Your task to perform on an android device: Open maps Image 0: 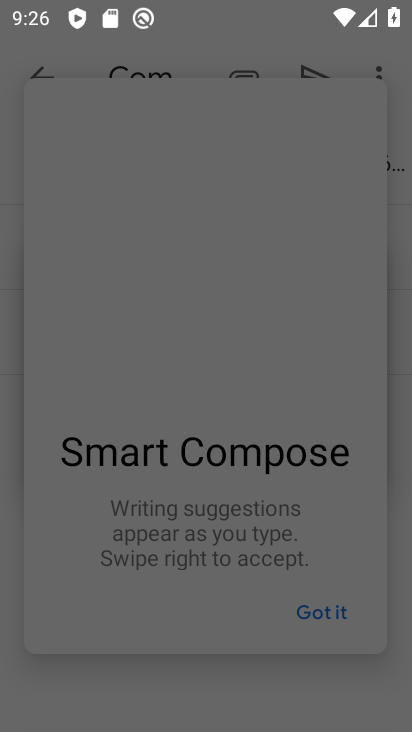
Step 0: press home button
Your task to perform on an android device: Open maps Image 1: 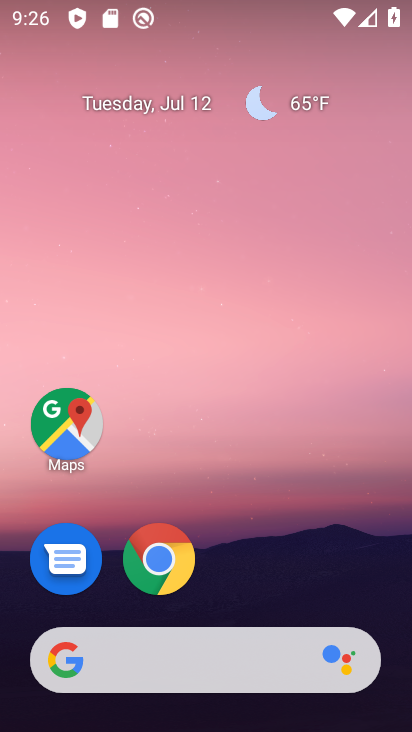
Step 1: drag from (360, 584) to (386, 111)
Your task to perform on an android device: Open maps Image 2: 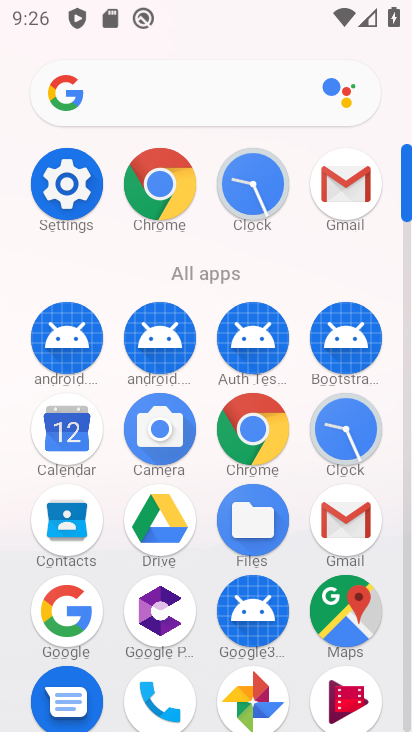
Step 2: click (342, 612)
Your task to perform on an android device: Open maps Image 3: 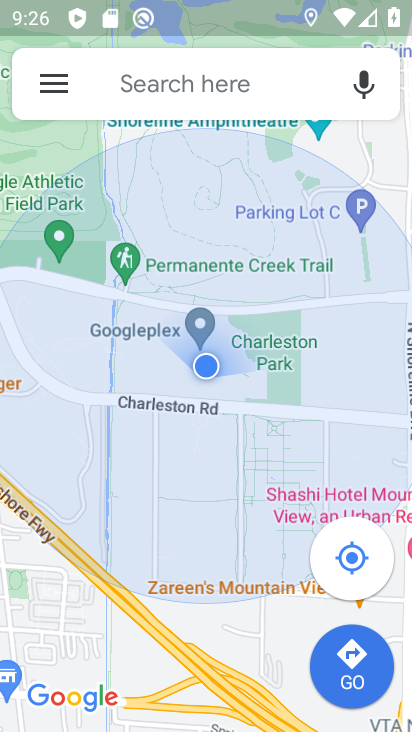
Step 3: task complete